Your task to perform on an android device: make emails show in primary in the gmail app Image 0: 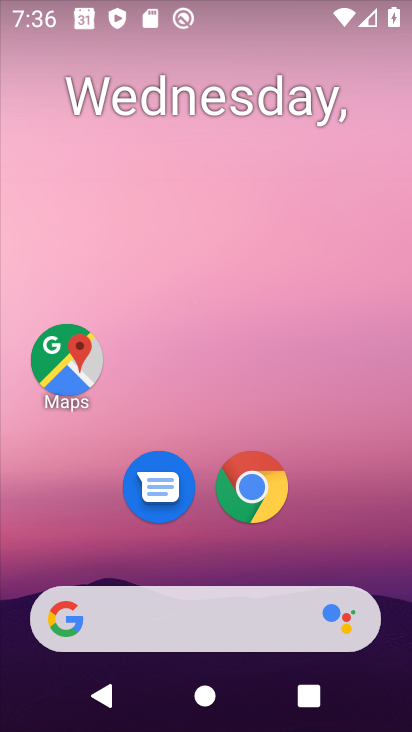
Step 0: drag from (360, 531) to (210, 20)
Your task to perform on an android device: make emails show in primary in the gmail app Image 1: 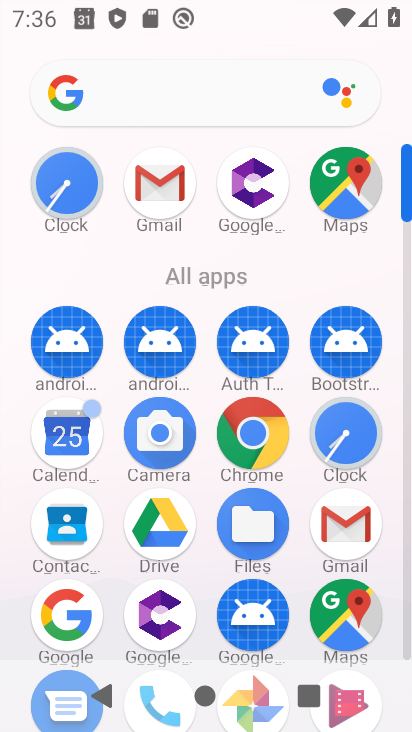
Step 1: click (160, 202)
Your task to perform on an android device: make emails show in primary in the gmail app Image 2: 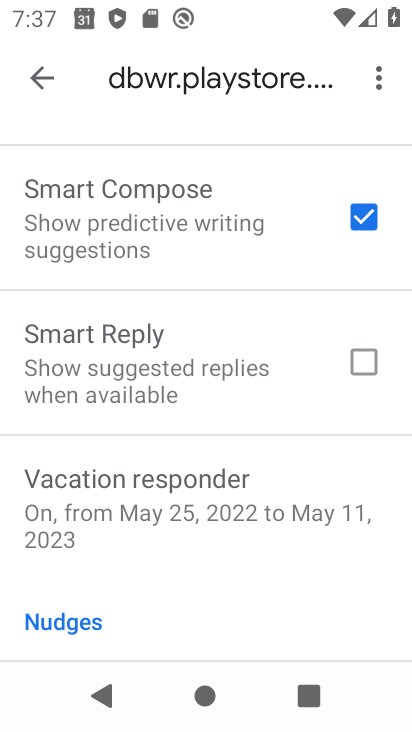
Step 2: drag from (147, 224) to (153, 702)
Your task to perform on an android device: make emails show in primary in the gmail app Image 3: 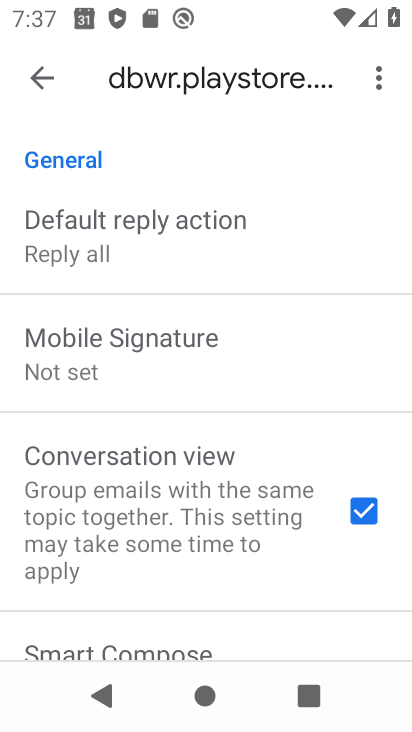
Step 3: drag from (162, 229) to (152, 693)
Your task to perform on an android device: make emails show in primary in the gmail app Image 4: 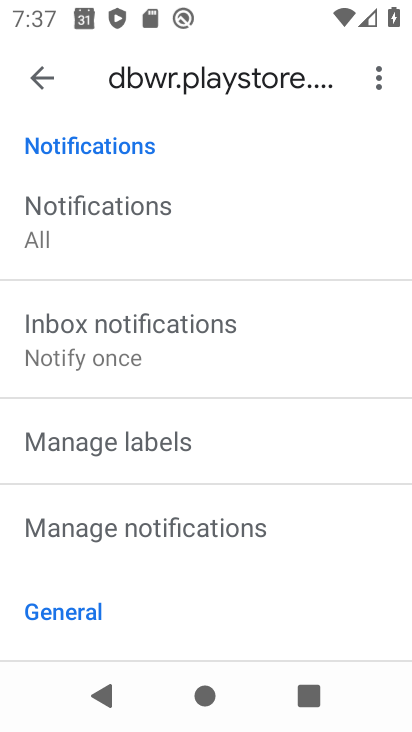
Step 4: drag from (168, 291) to (156, 687)
Your task to perform on an android device: make emails show in primary in the gmail app Image 5: 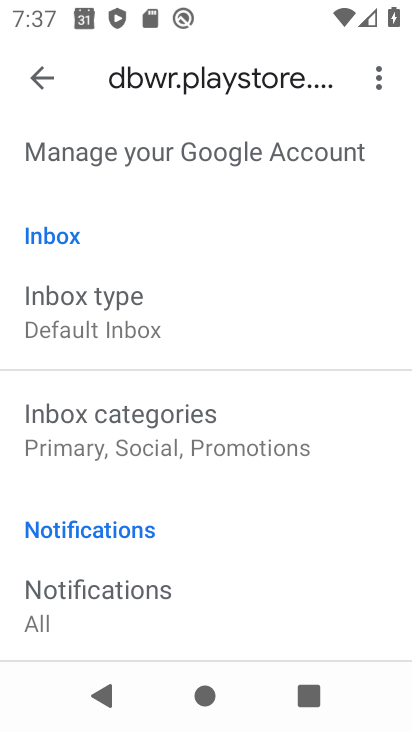
Step 5: click (169, 443)
Your task to perform on an android device: make emails show in primary in the gmail app Image 6: 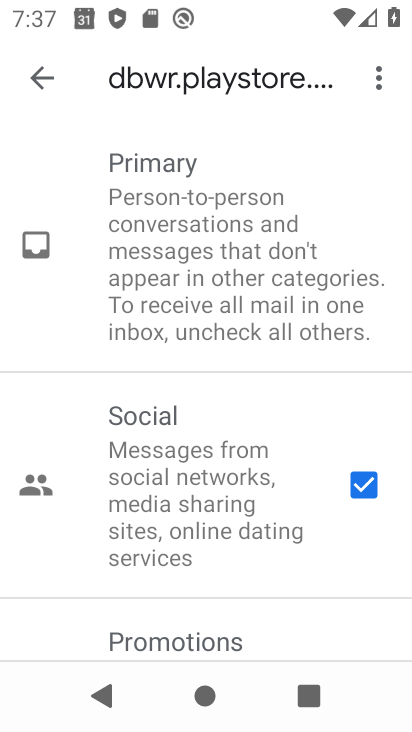
Step 6: drag from (176, 484) to (173, 419)
Your task to perform on an android device: make emails show in primary in the gmail app Image 7: 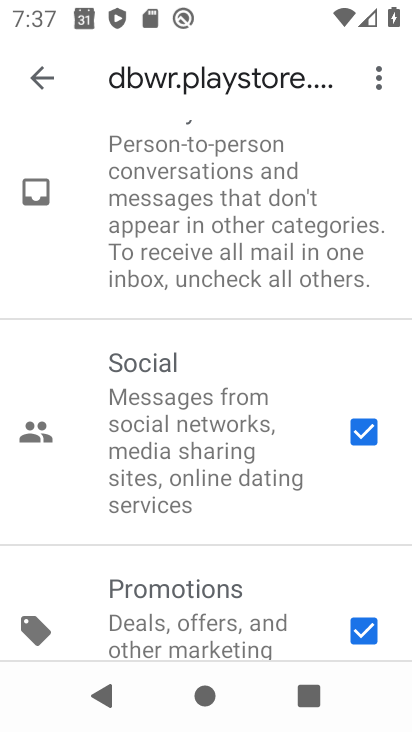
Step 7: click (369, 431)
Your task to perform on an android device: make emails show in primary in the gmail app Image 8: 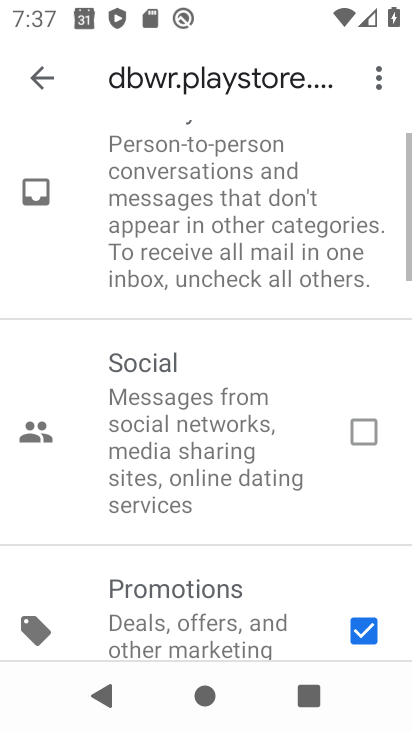
Step 8: click (369, 627)
Your task to perform on an android device: make emails show in primary in the gmail app Image 9: 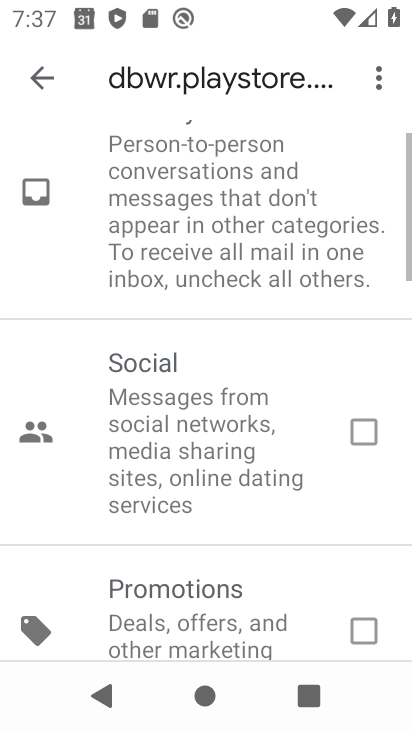
Step 9: drag from (199, 565) to (166, 197)
Your task to perform on an android device: make emails show in primary in the gmail app Image 10: 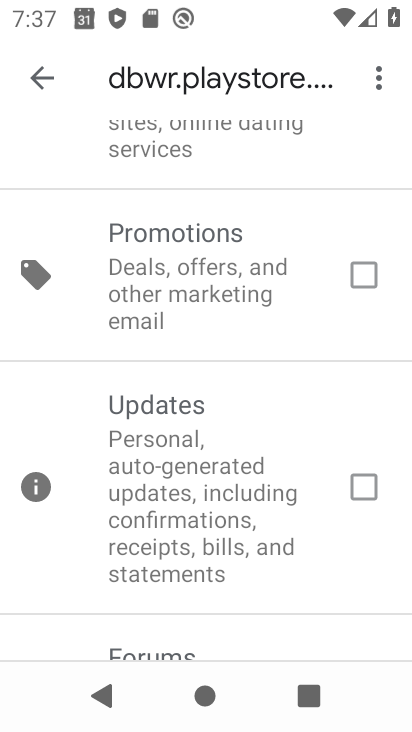
Step 10: drag from (175, 454) to (179, 203)
Your task to perform on an android device: make emails show in primary in the gmail app Image 11: 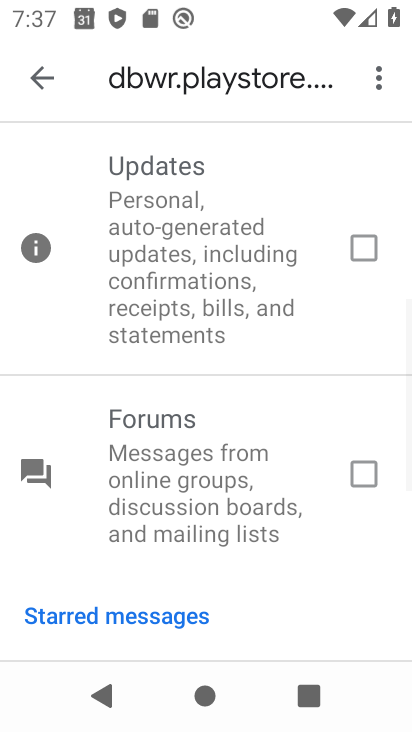
Step 11: click (37, 73)
Your task to perform on an android device: make emails show in primary in the gmail app Image 12: 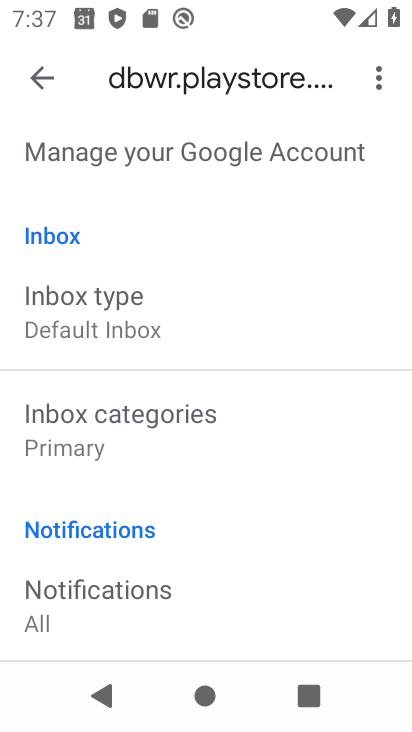
Step 12: task complete